Your task to perform on an android device: open app "Mercado Libre" (install if not already installed) and go to login screen Image 0: 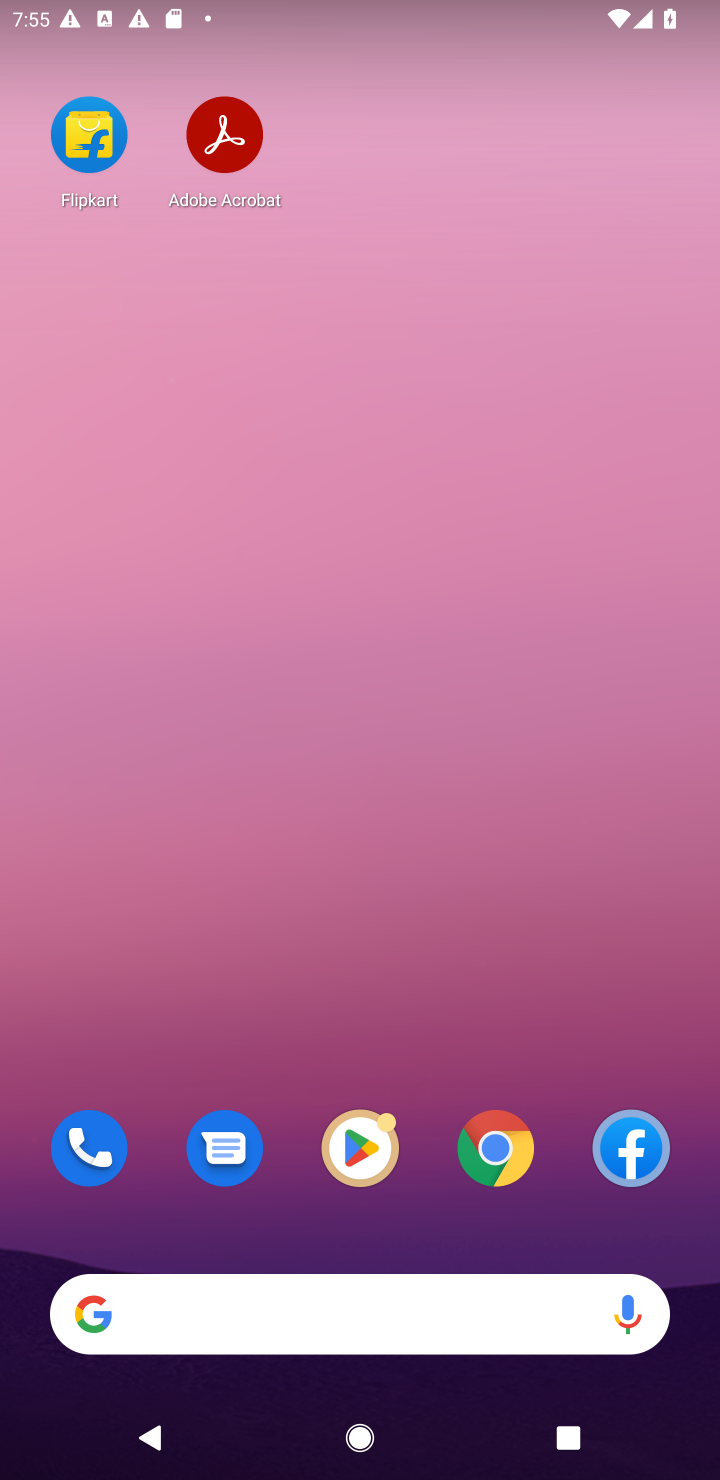
Step 0: drag from (300, 934) to (579, 18)
Your task to perform on an android device: open app "Mercado Libre" (install if not already installed) and go to login screen Image 1: 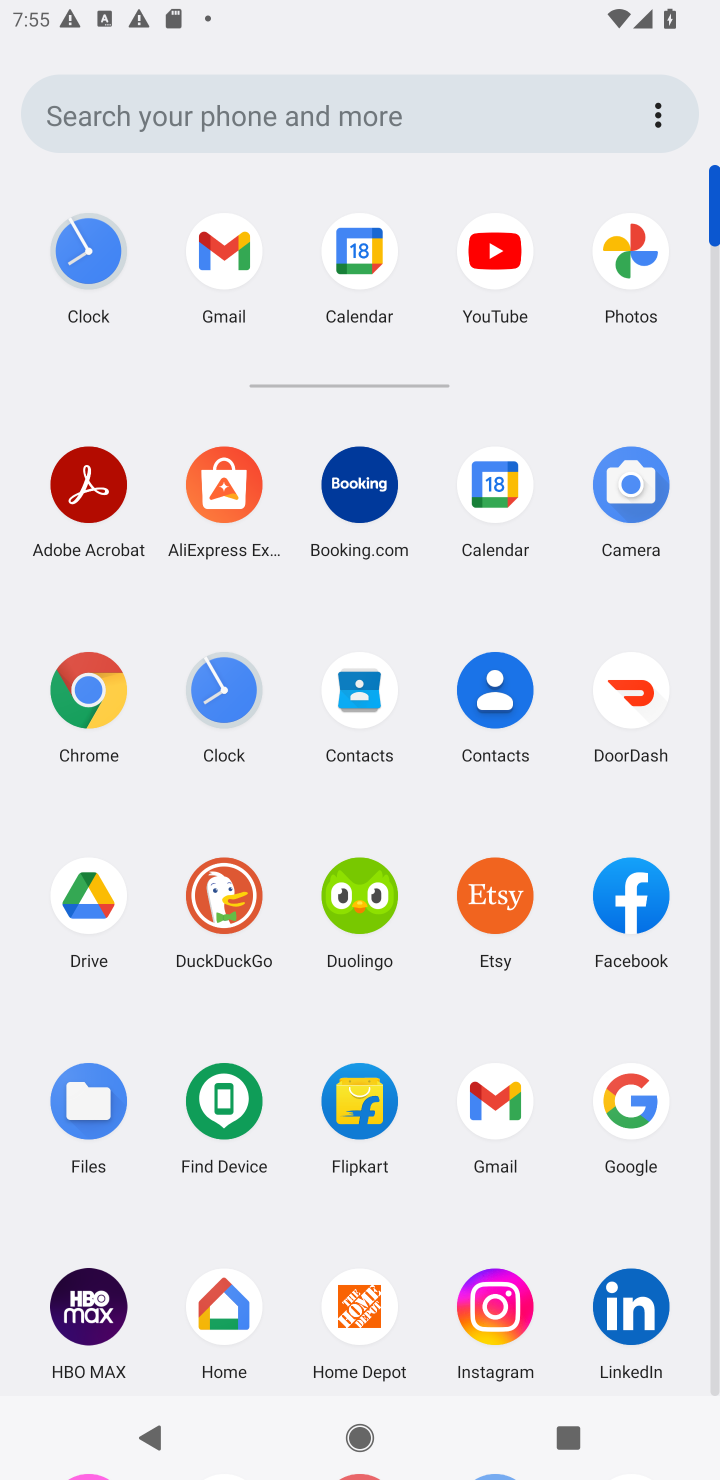
Step 1: drag from (420, 1080) to (548, 199)
Your task to perform on an android device: open app "Mercado Libre" (install if not already installed) and go to login screen Image 2: 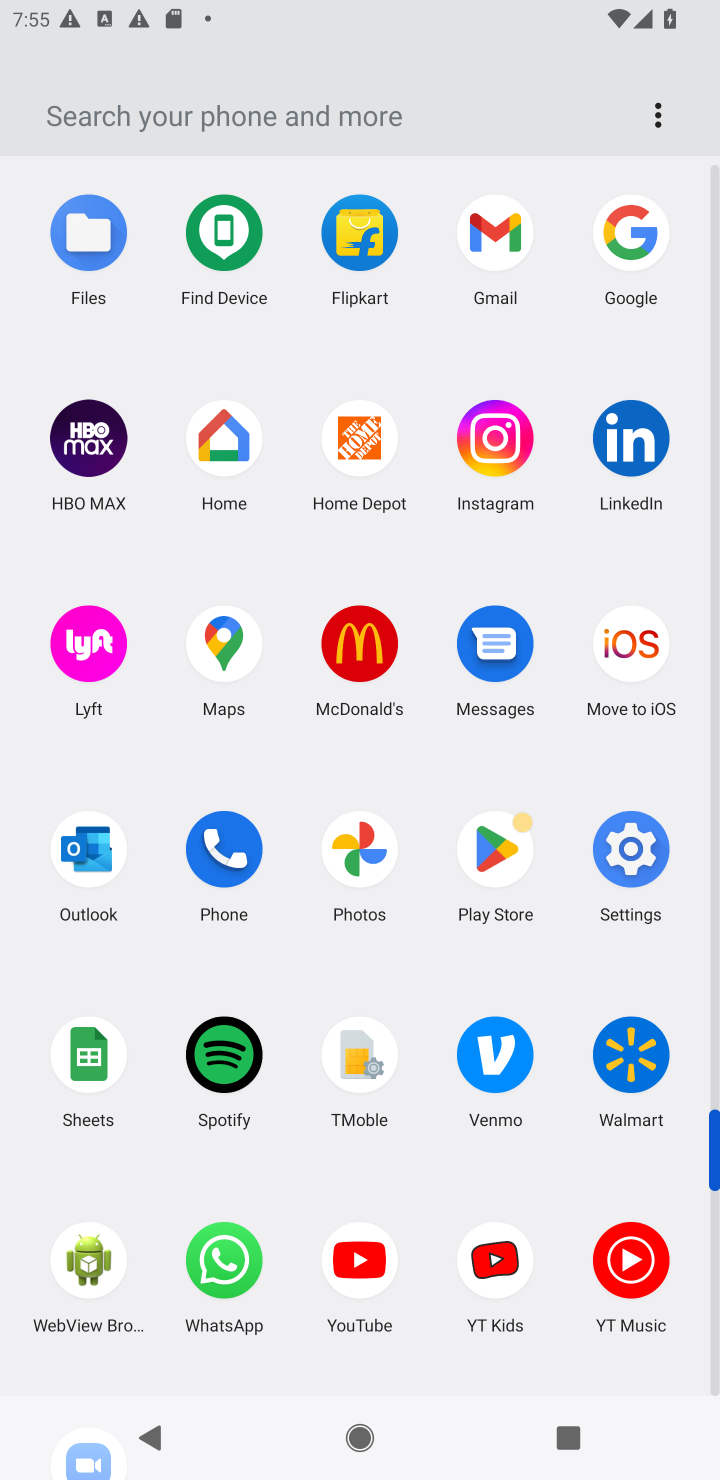
Step 2: click (480, 879)
Your task to perform on an android device: open app "Mercado Libre" (install if not already installed) and go to login screen Image 3: 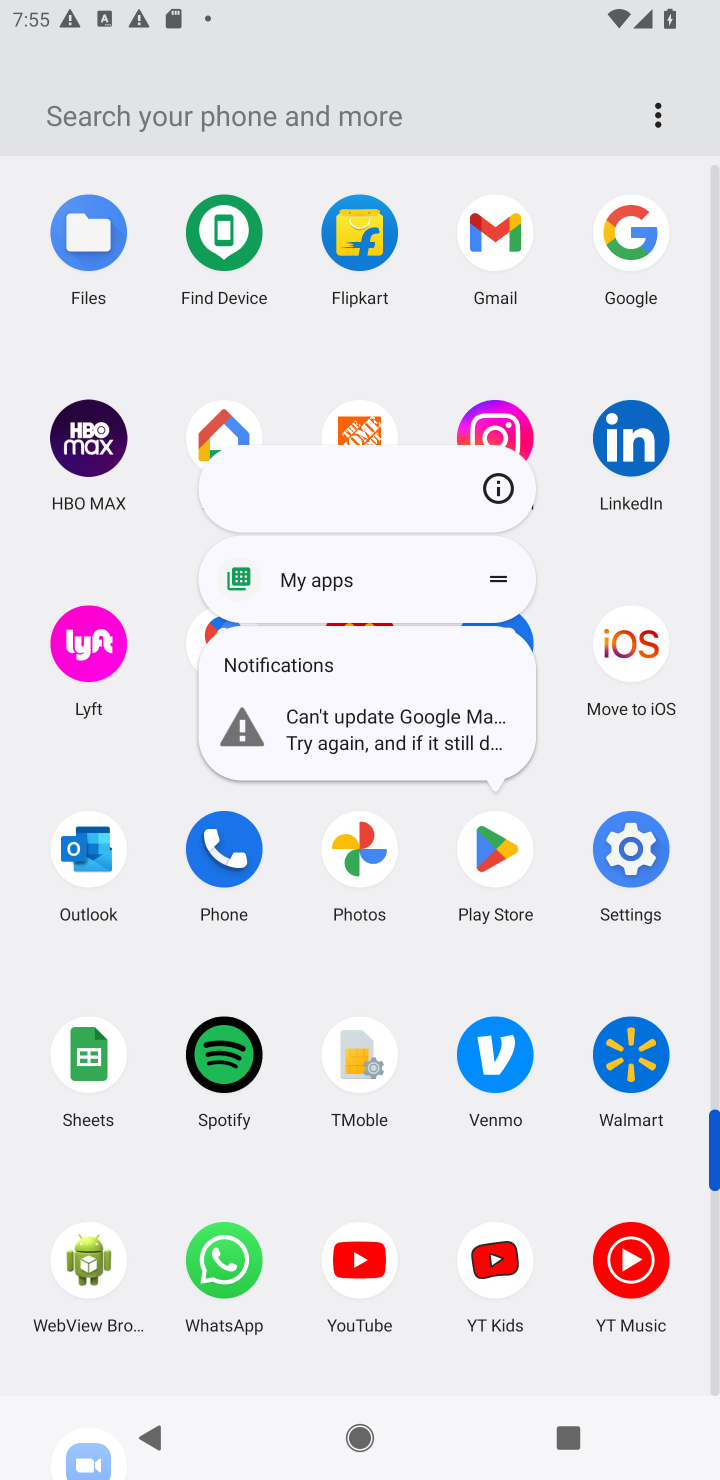
Step 3: click (482, 874)
Your task to perform on an android device: open app "Mercado Libre" (install if not already installed) and go to login screen Image 4: 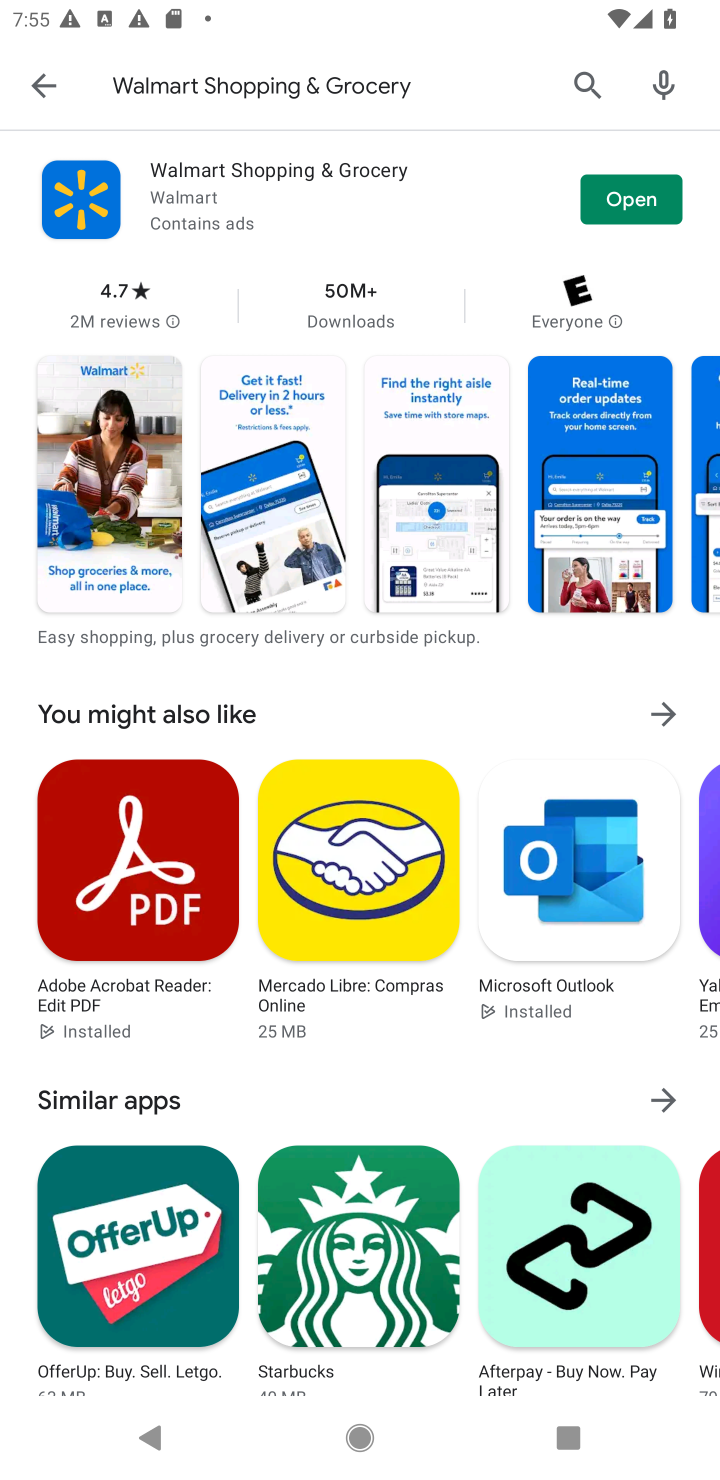
Step 4: press back button
Your task to perform on an android device: open app "Mercado Libre" (install if not already installed) and go to login screen Image 5: 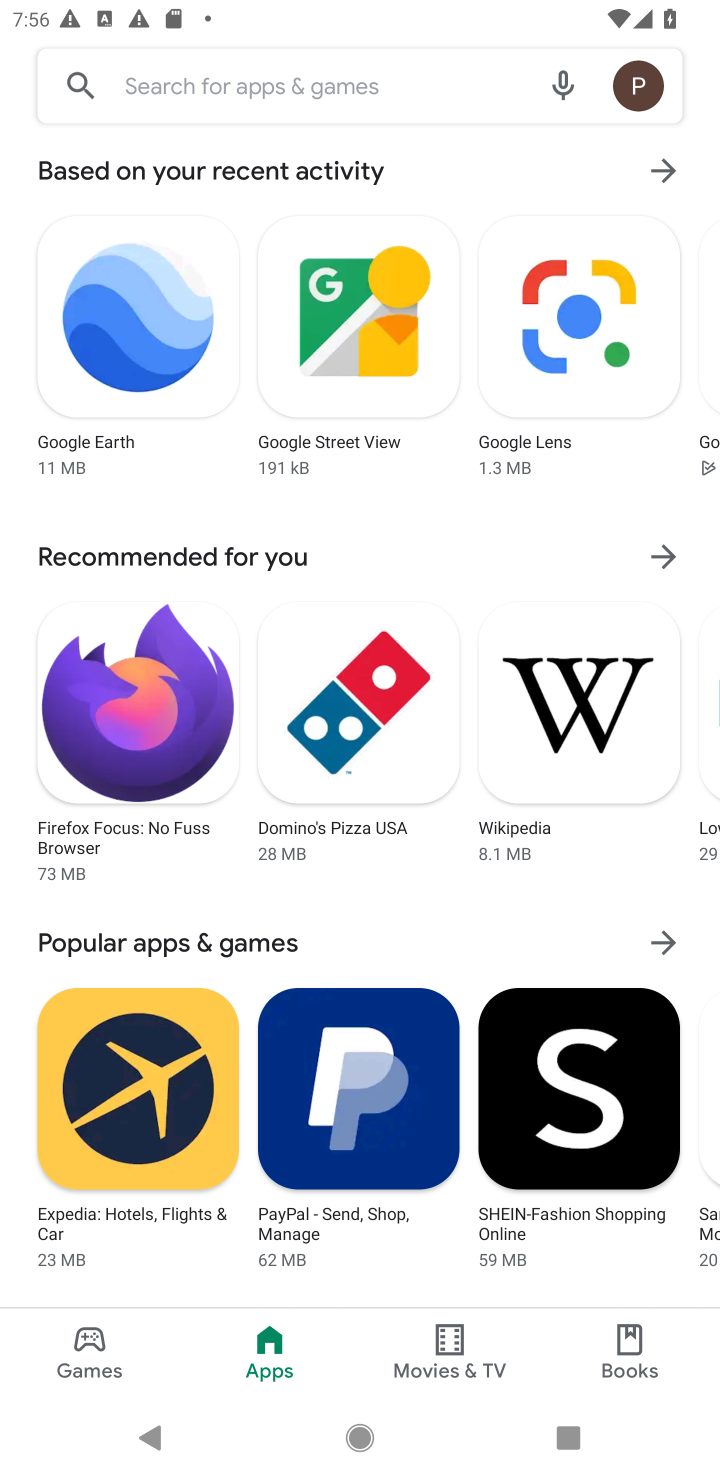
Step 5: press enter
Your task to perform on an android device: open app "Mercado Libre" (install if not already installed) and go to login screen Image 6: 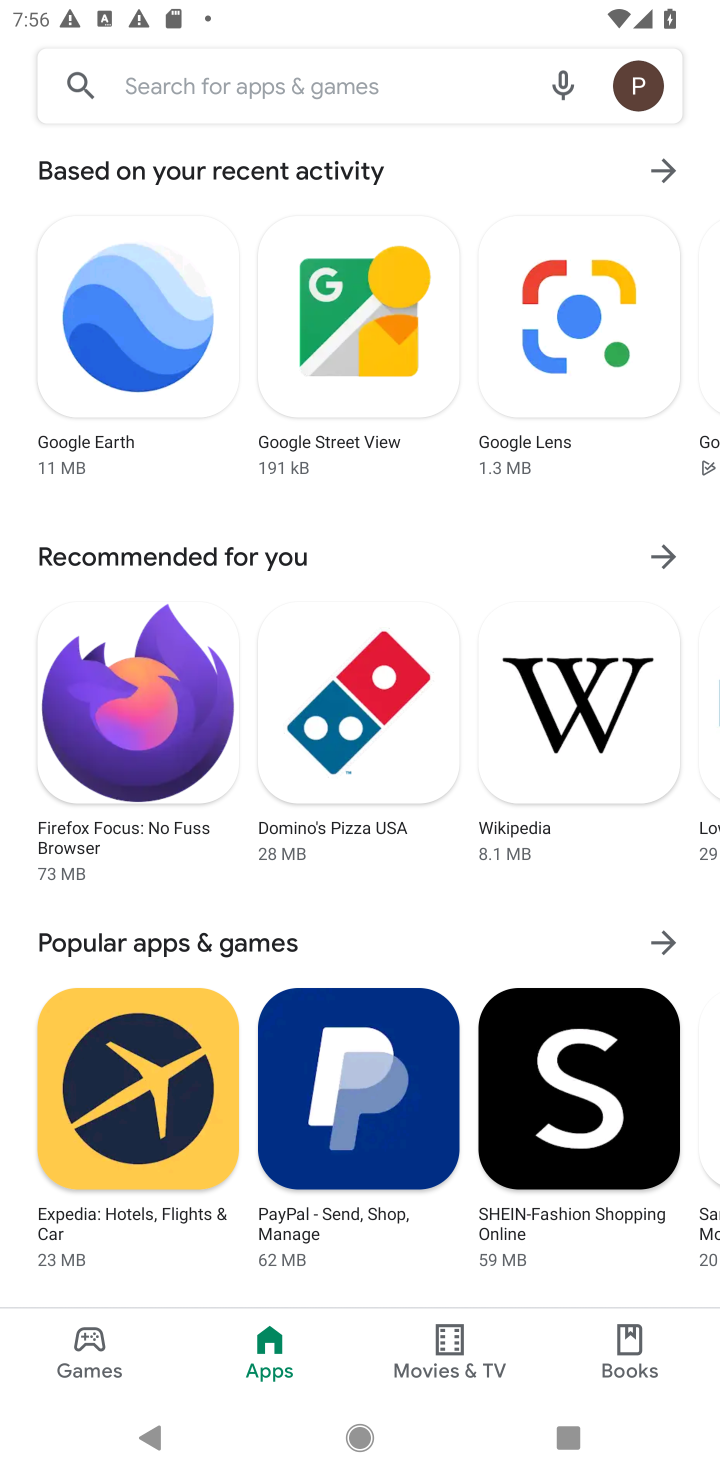
Step 6: type "Mercado Libre"
Your task to perform on an android device: open app "Mercado Libre" (install if not already installed) and go to login screen Image 7: 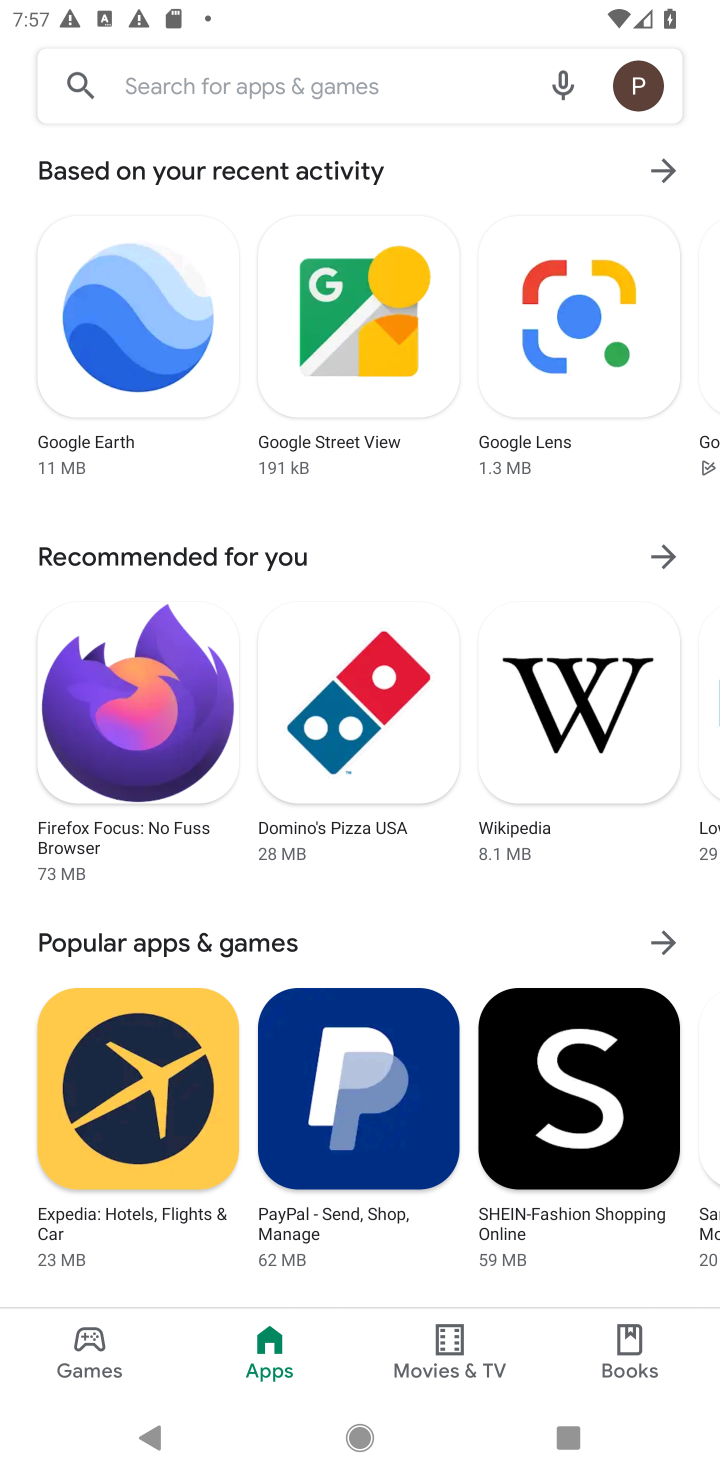
Step 7: click (233, 106)
Your task to perform on an android device: open app "Mercado Libre" (install if not already installed) and go to login screen Image 8: 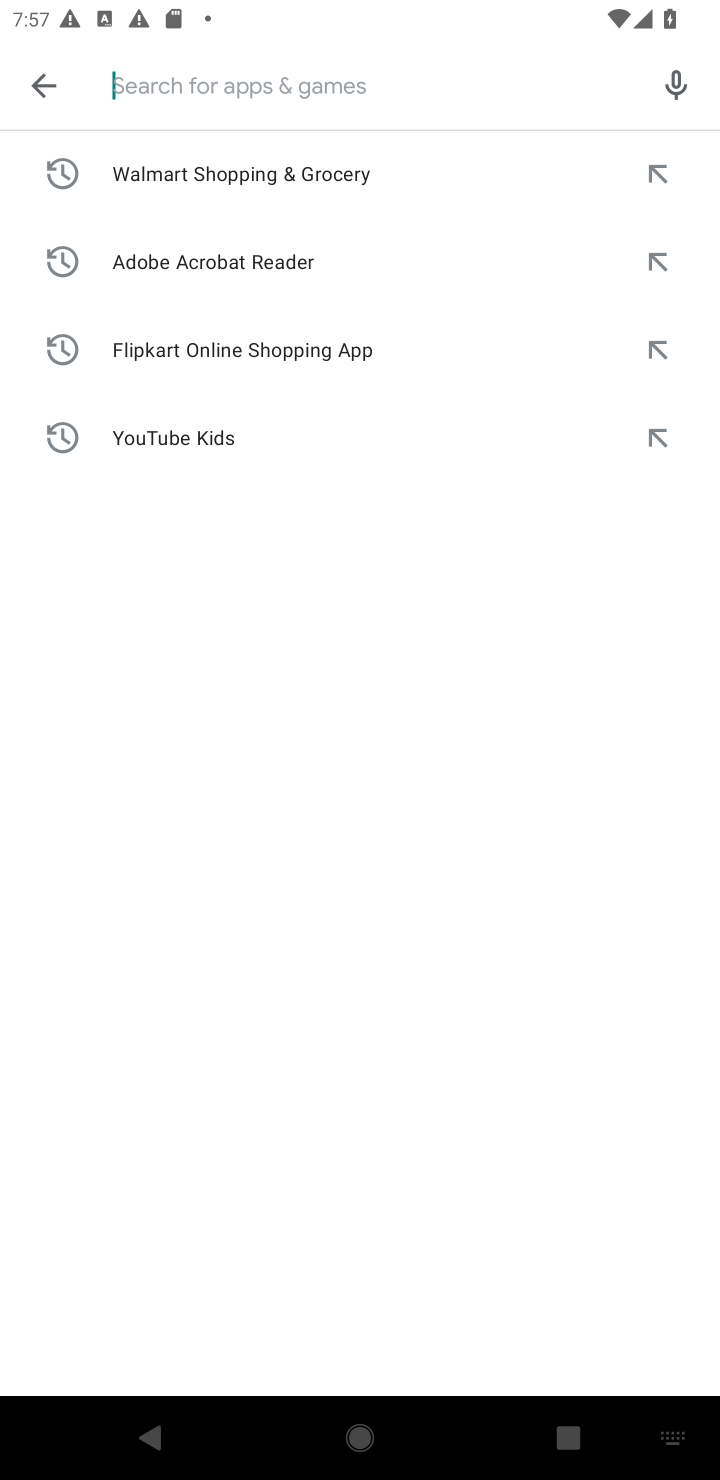
Step 8: type "Mercado Libre"
Your task to perform on an android device: open app "Mercado Libre" (install if not already installed) and go to login screen Image 9: 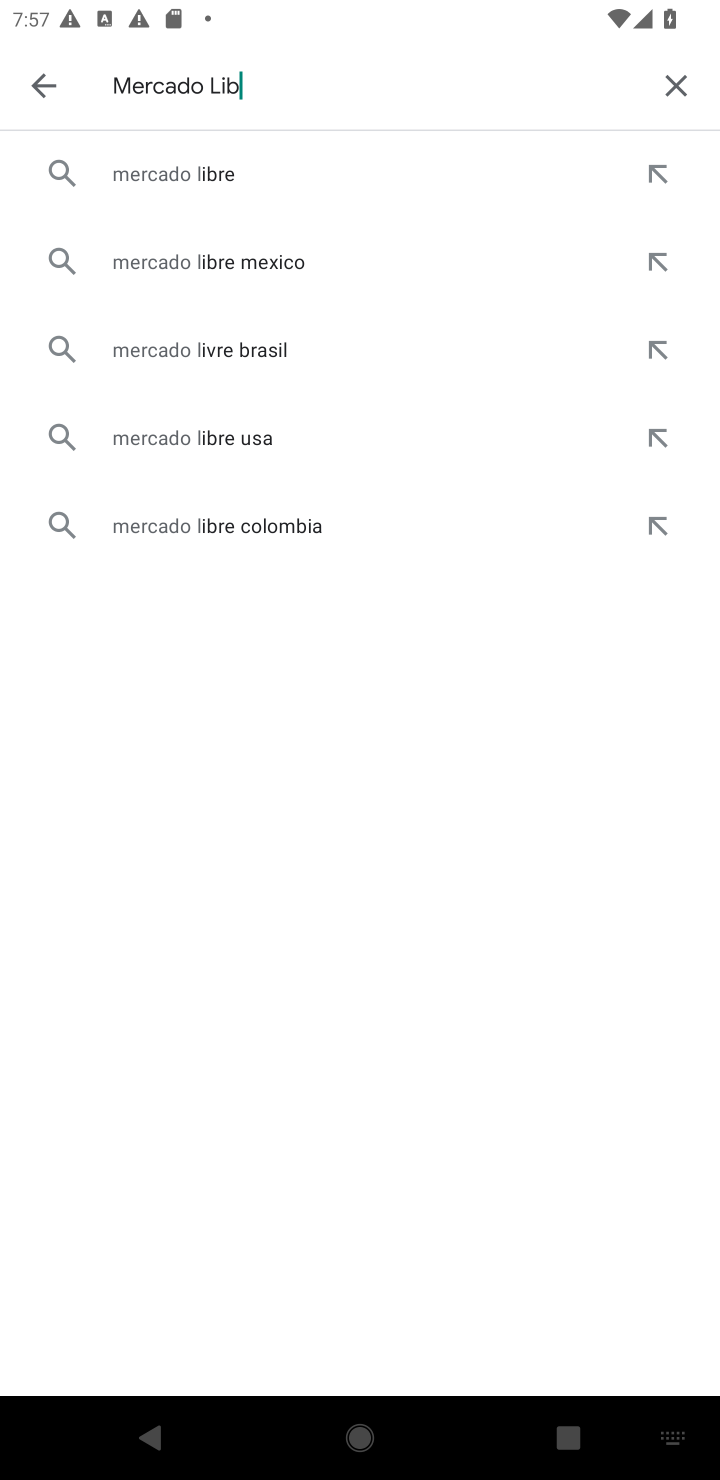
Step 9: press enter
Your task to perform on an android device: open app "Mercado Libre" (install if not already installed) and go to login screen Image 10: 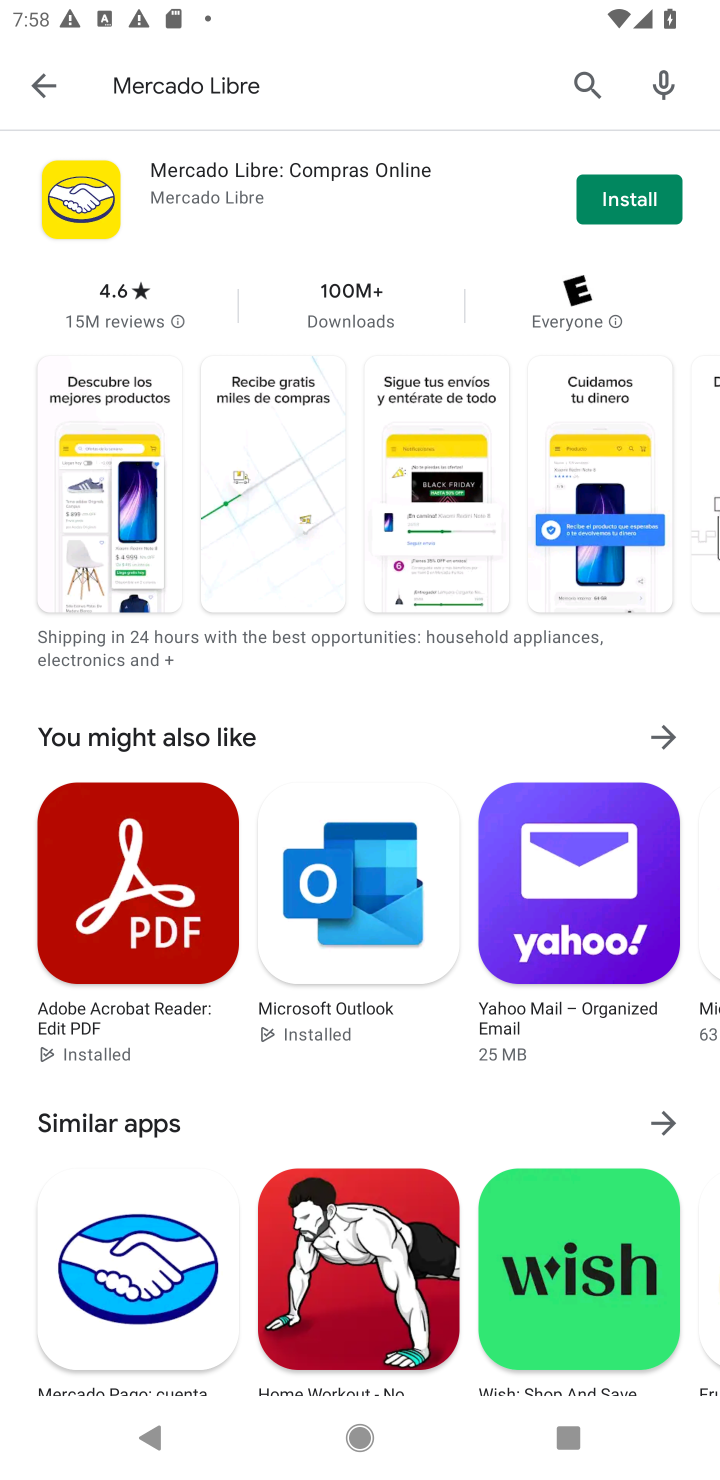
Step 10: click (644, 200)
Your task to perform on an android device: open app "Mercado Libre" (install if not already installed) and go to login screen Image 11: 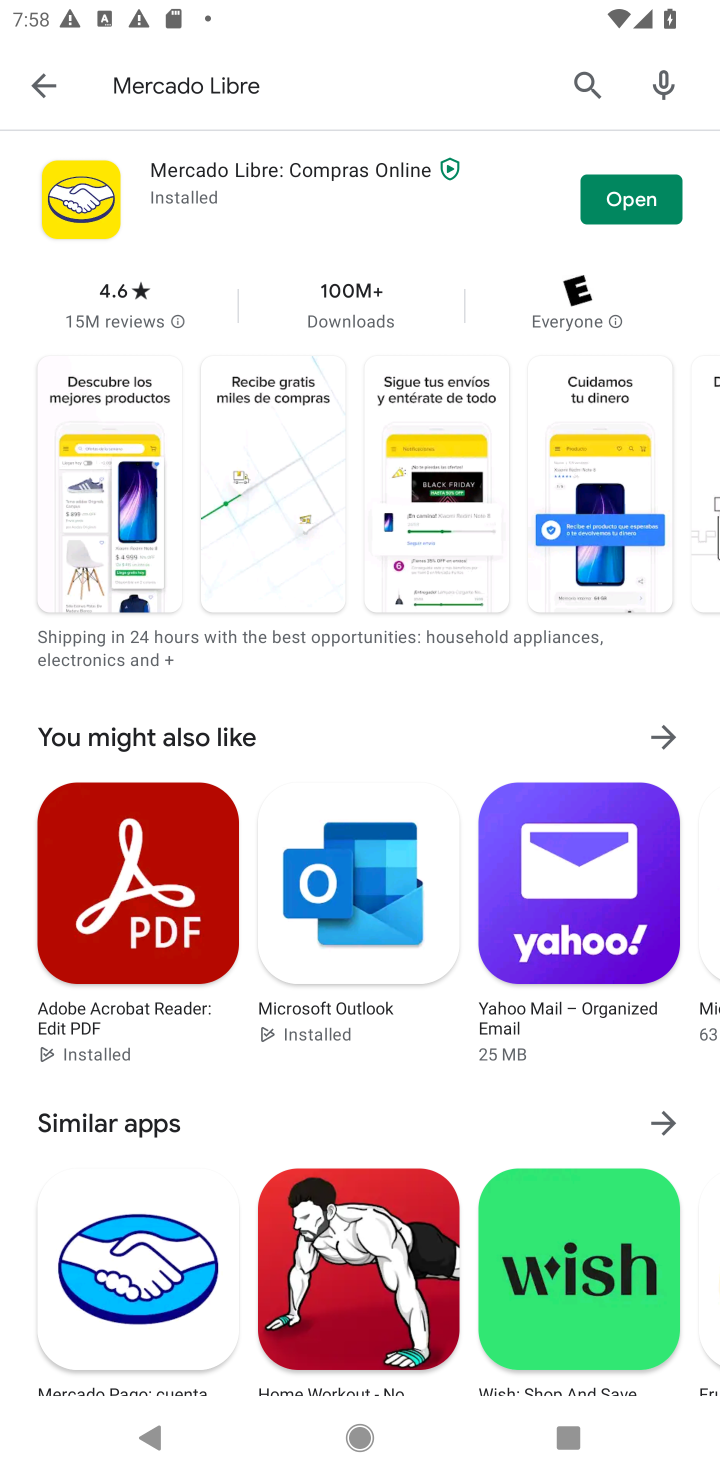
Step 11: task complete